Your task to perform on an android device: see tabs open on other devices in the chrome app Image 0: 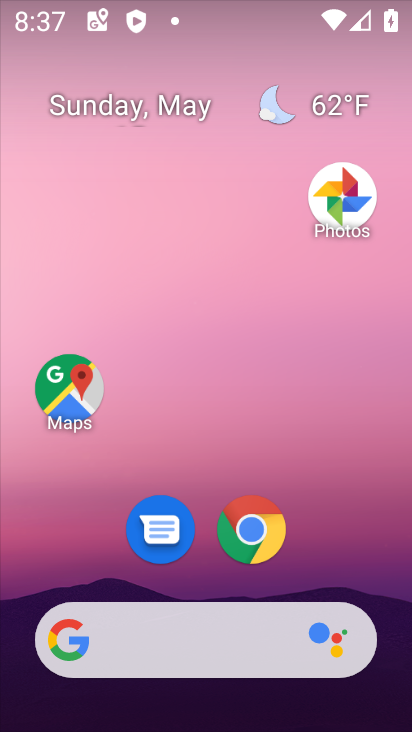
Step 0: drag from (370, 496) to (322, 42)
Your task to perform on an android device: see tabs open on other devices in the chrome app Image 1: 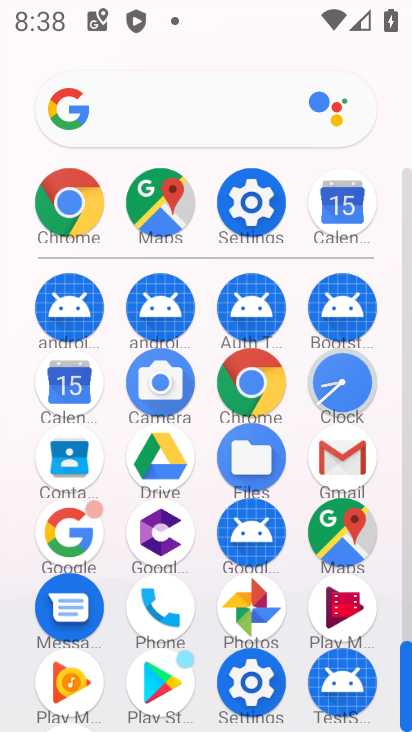
Step 1: drag from (303, 642) to (304, 374)
Your task to perform on an android device: see tabs open on other devices in the chrome app Image 2: 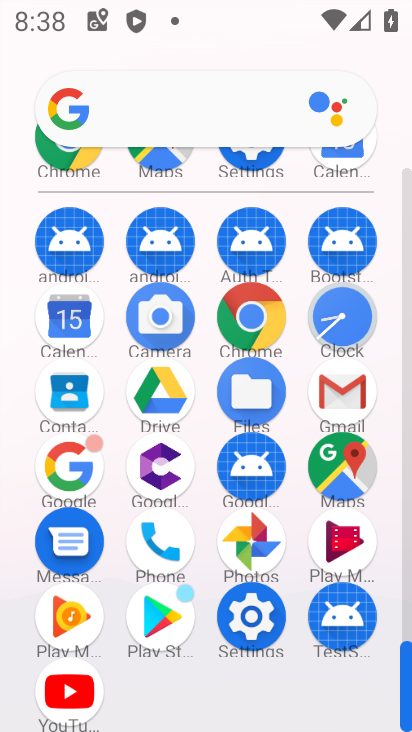
Step 2: click (249, 331)
Your task to perform on an android device: see tabs open on other devices in the chrome app Image 3: 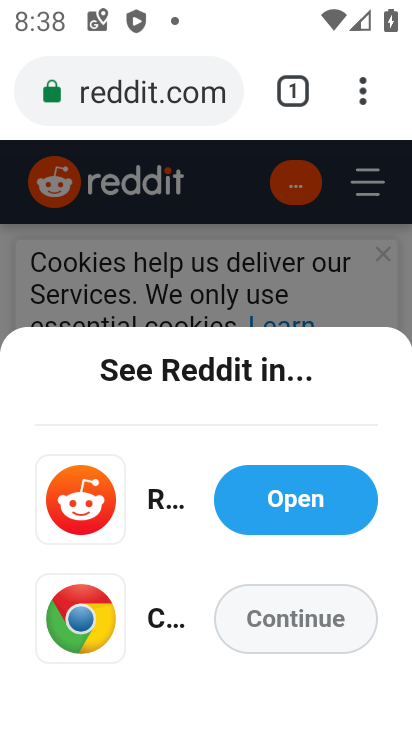
Step 3: click (303, 88)
Your task to perform on an android device: see tabs open on other devices in the chrome app Image 4: 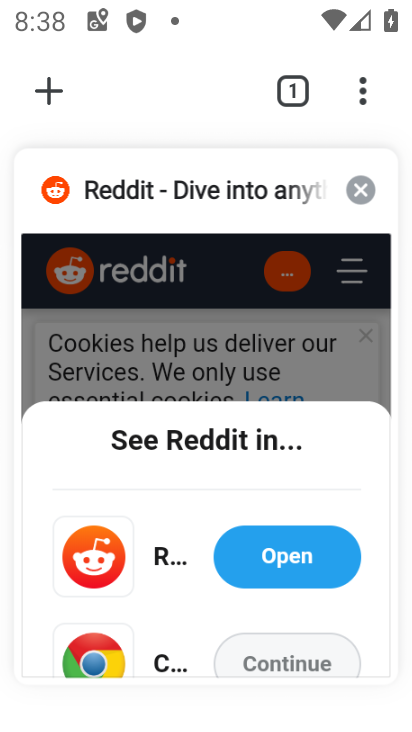
Step 4: click (33, 100)
Your task to perform on an android device: see tabs open on other devices in the chrome app Image 5: 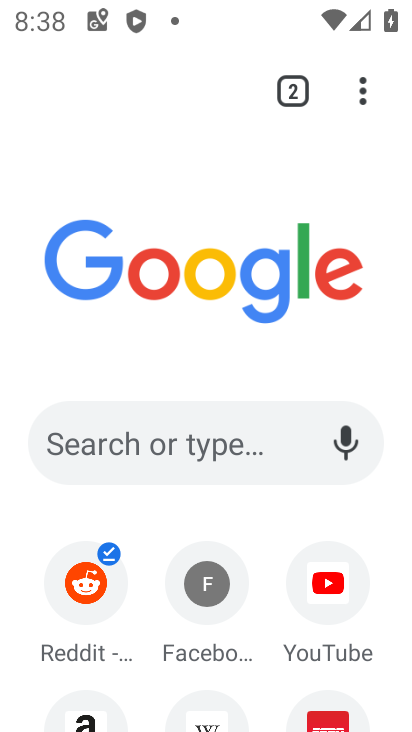
Step 5: task complete